Your task to perform on an android device: check the backup settings in the google photos Image 0: 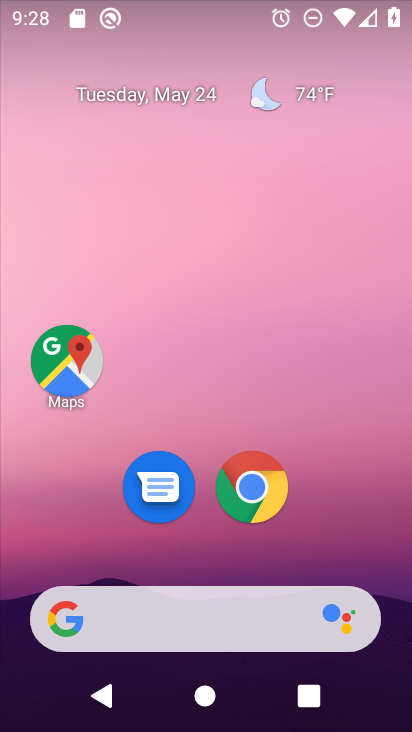
Step 0: drag from (378, 576) to (373, 27)
Your task to perform on an android device: check the backup settings in the google photos Image 1: 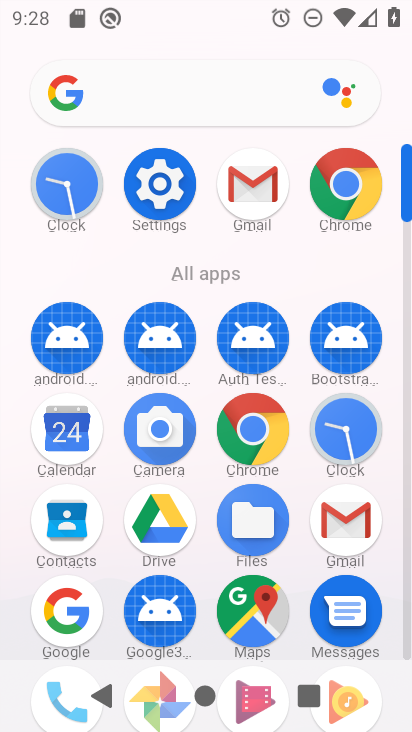
Step 1: click (405, 571)
Your task to perform on an android device: check the backup settings in the google photos Image 2: 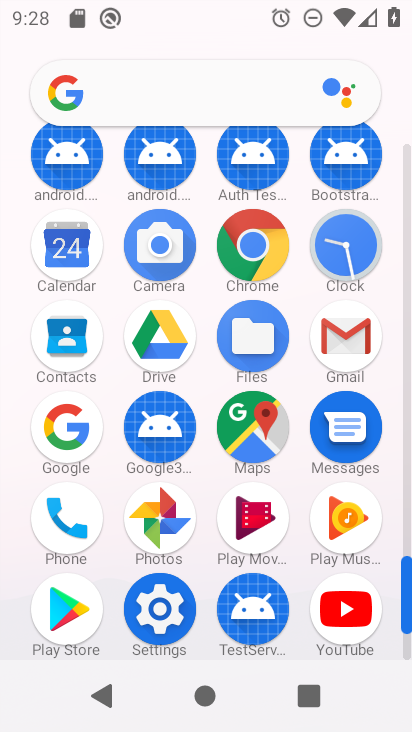
Step 2: click (159, 519)
Your task to perform on an android device: check the backup settings in the google photos Image 3: 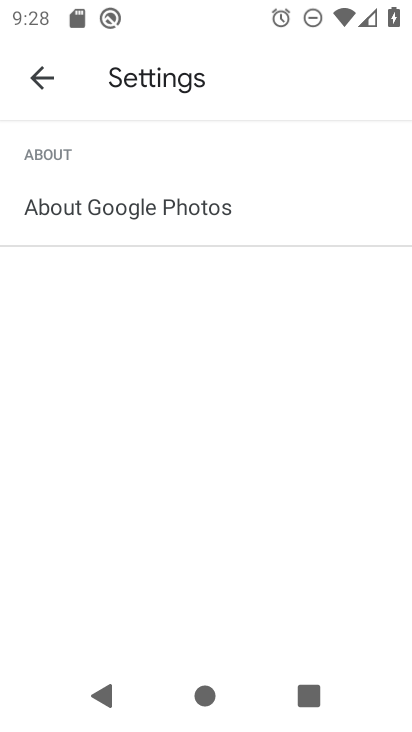
Step 3: click (44, 84)
Your task to perform on an android device: check the backup settings in the google photos Image 4: 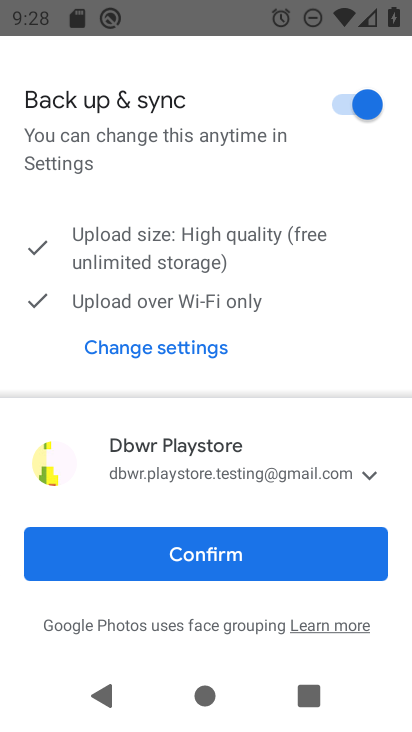
Step 4: click (229, 563)
Your task to perform on an android device: check the backup settings in the google photos Image 5: 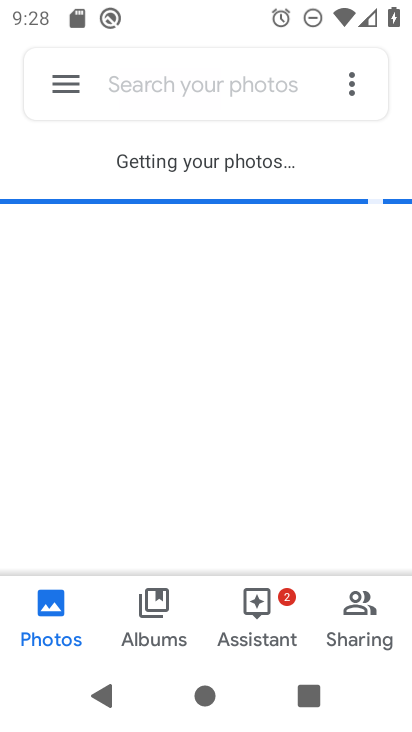
Step 5: click (68, 64)
Your task to perform on an android device: check the backup settings in the google photos Image 6: 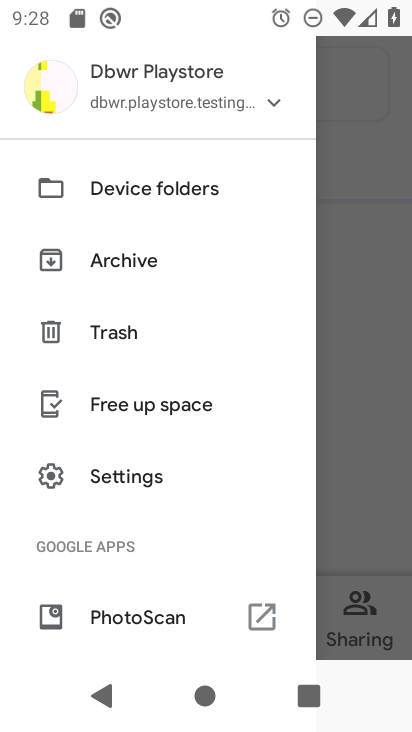
Step 6: click (129, 479)
Your task to perform on an android device: check the backup settings in the google photos Image 7: 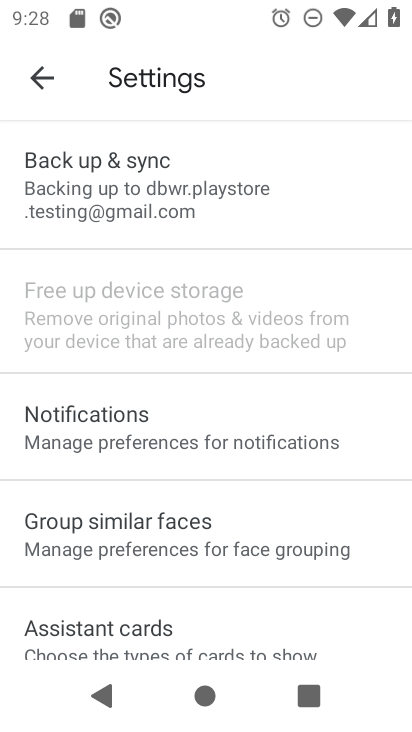
Step 7: click (99, 197)
Your task to perform on an android device: check the backup settings in the google photos Image 8: 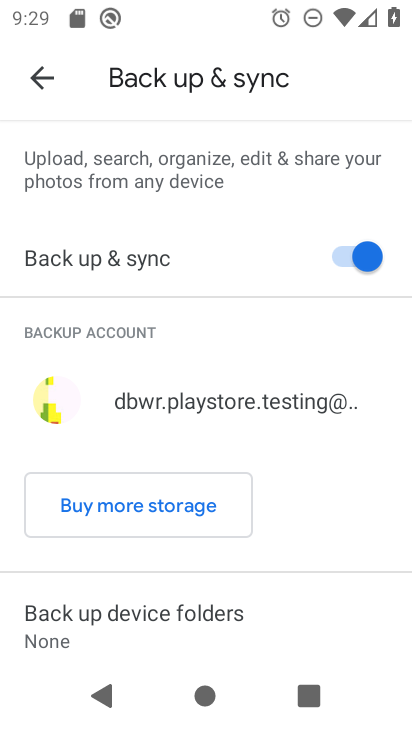
Step 8: task complete